Your task to perform on an android device: change the clock display to show seconds Image 0: 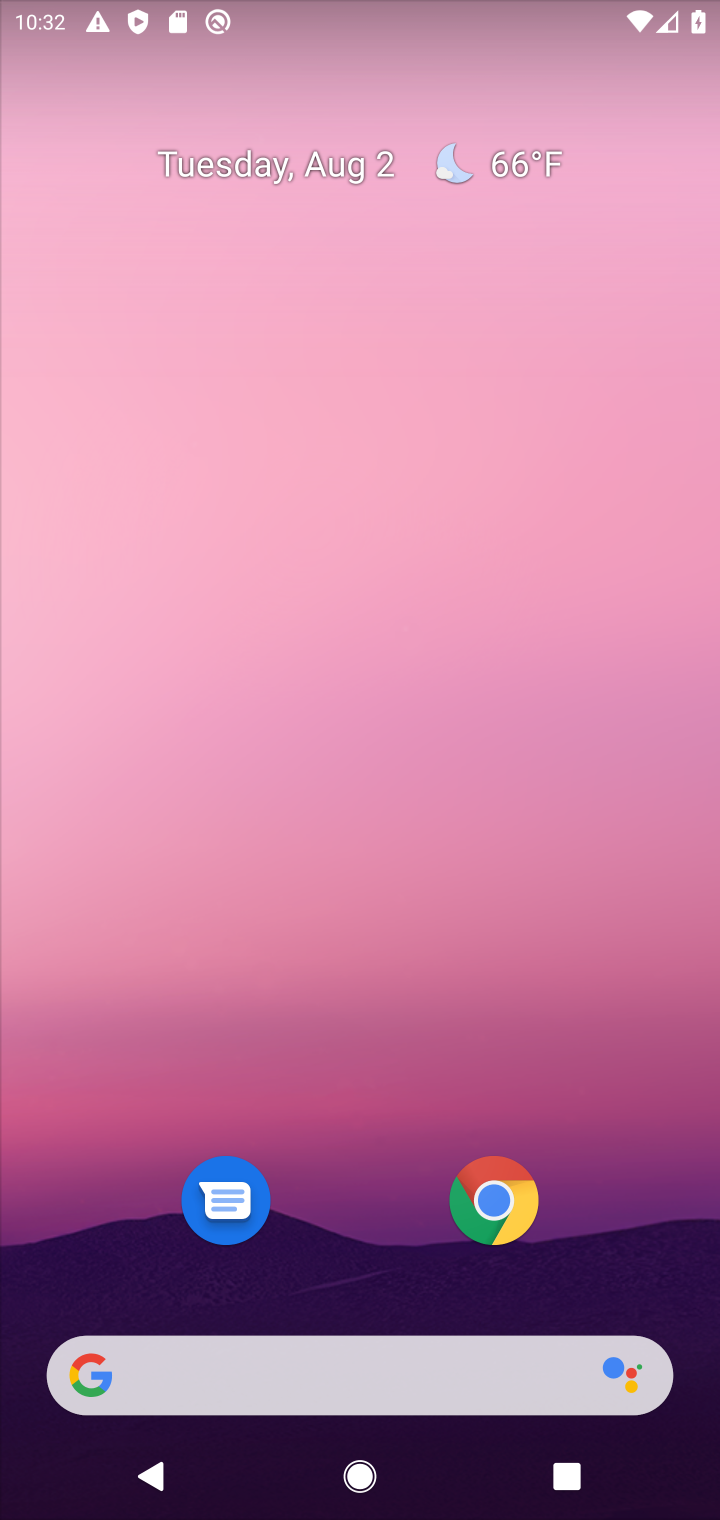
Step 0: drag from (651, 819) to (620, 142)
Your task to perform on an android device: change the clock display to show seconds Image 1: 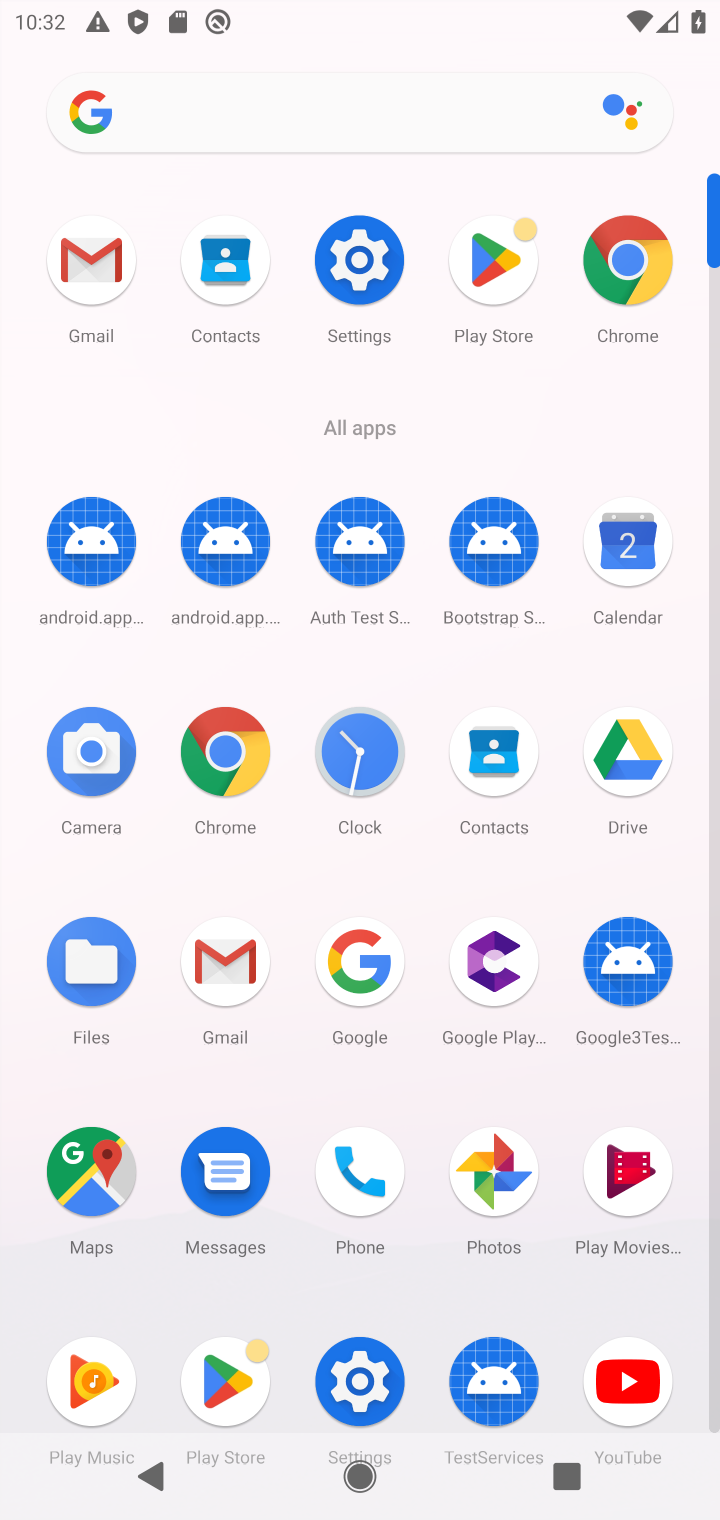
Step 1: click (359, 750)
Your task to perform on an android device: change the clock display to show seconds Image 2: 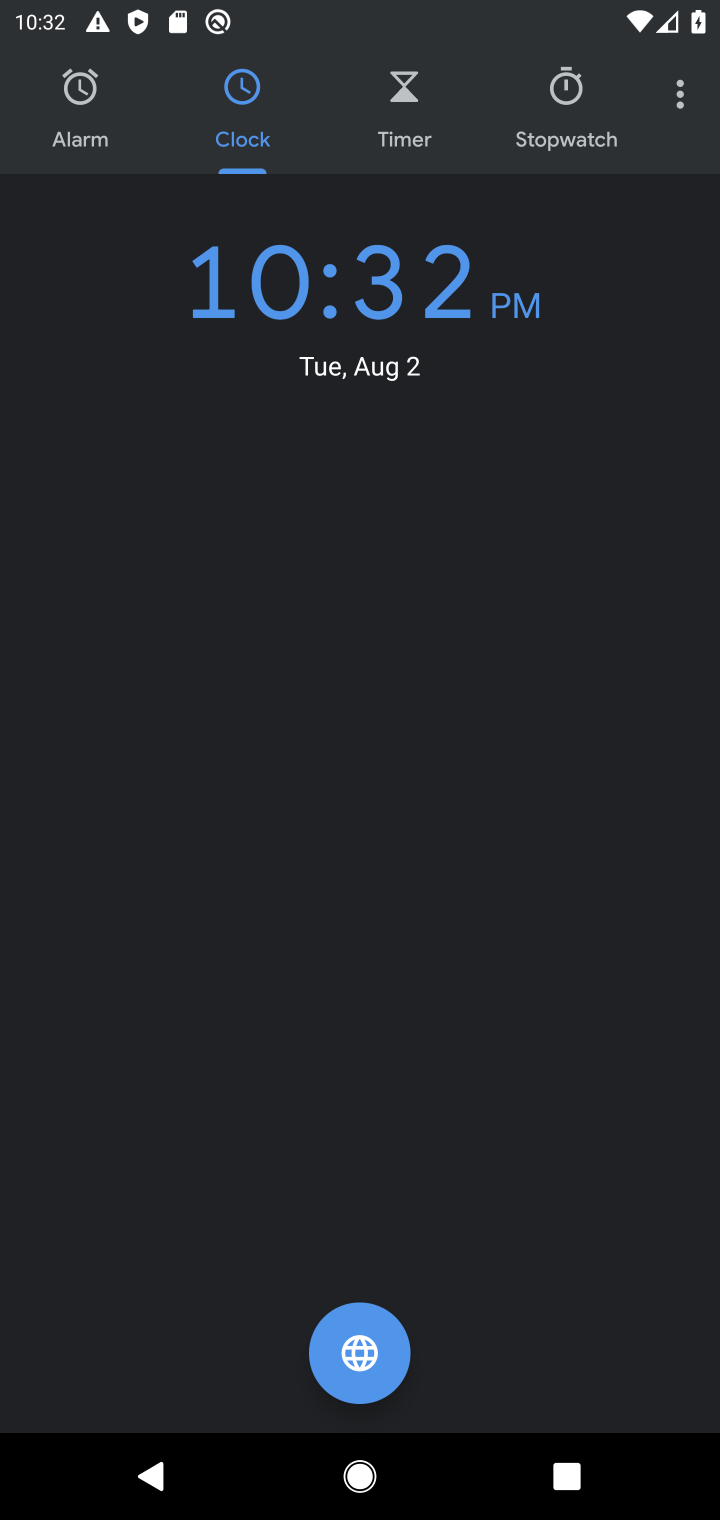
Step 2: click (688, 110)
Your task to perform on an android device: change the clock display to show seconds Image 3: 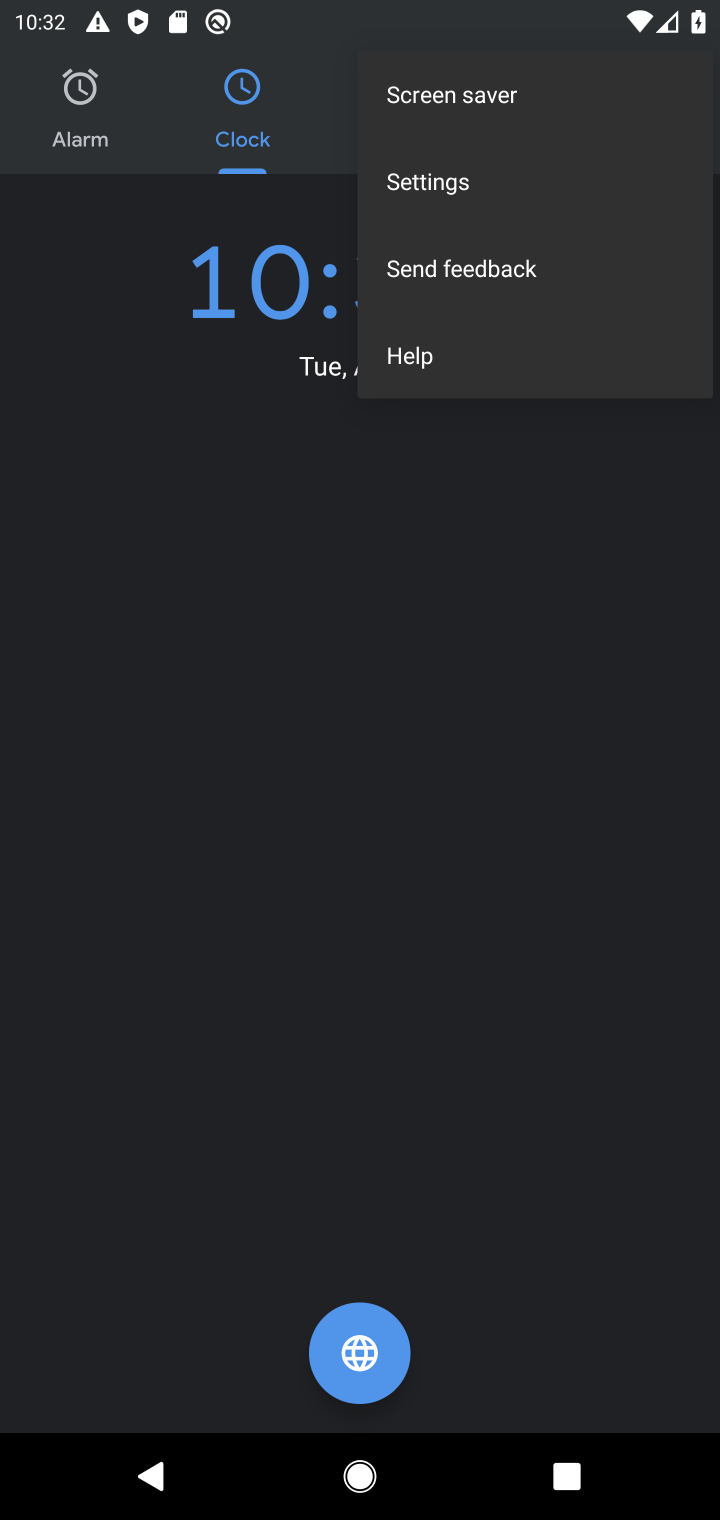
Step 3: click (409, 189)
Your task to perform on an android device: change the clock display to show seconds Image 4: 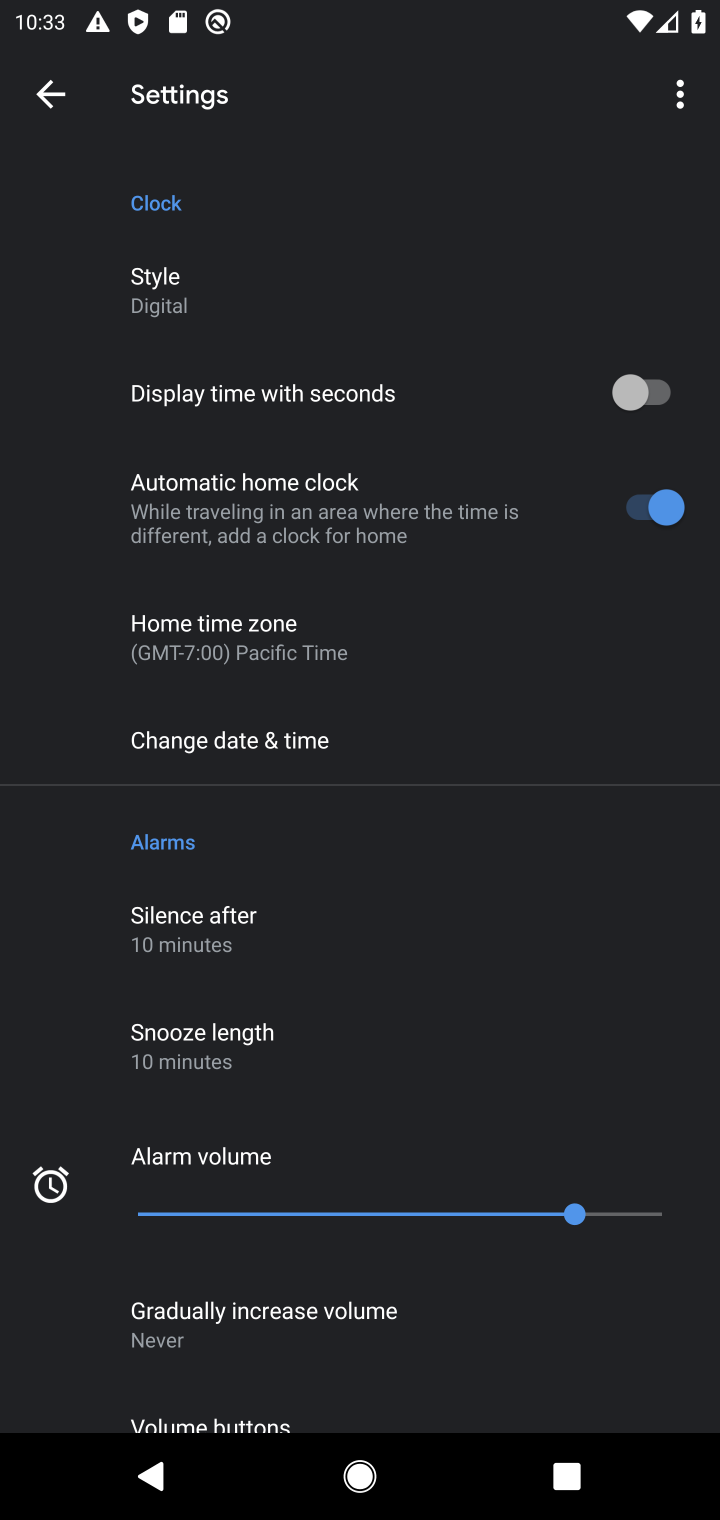
Step 4: click (664, 387)
Your task to perform on an android device: change the clock display to show seconds Image 5: 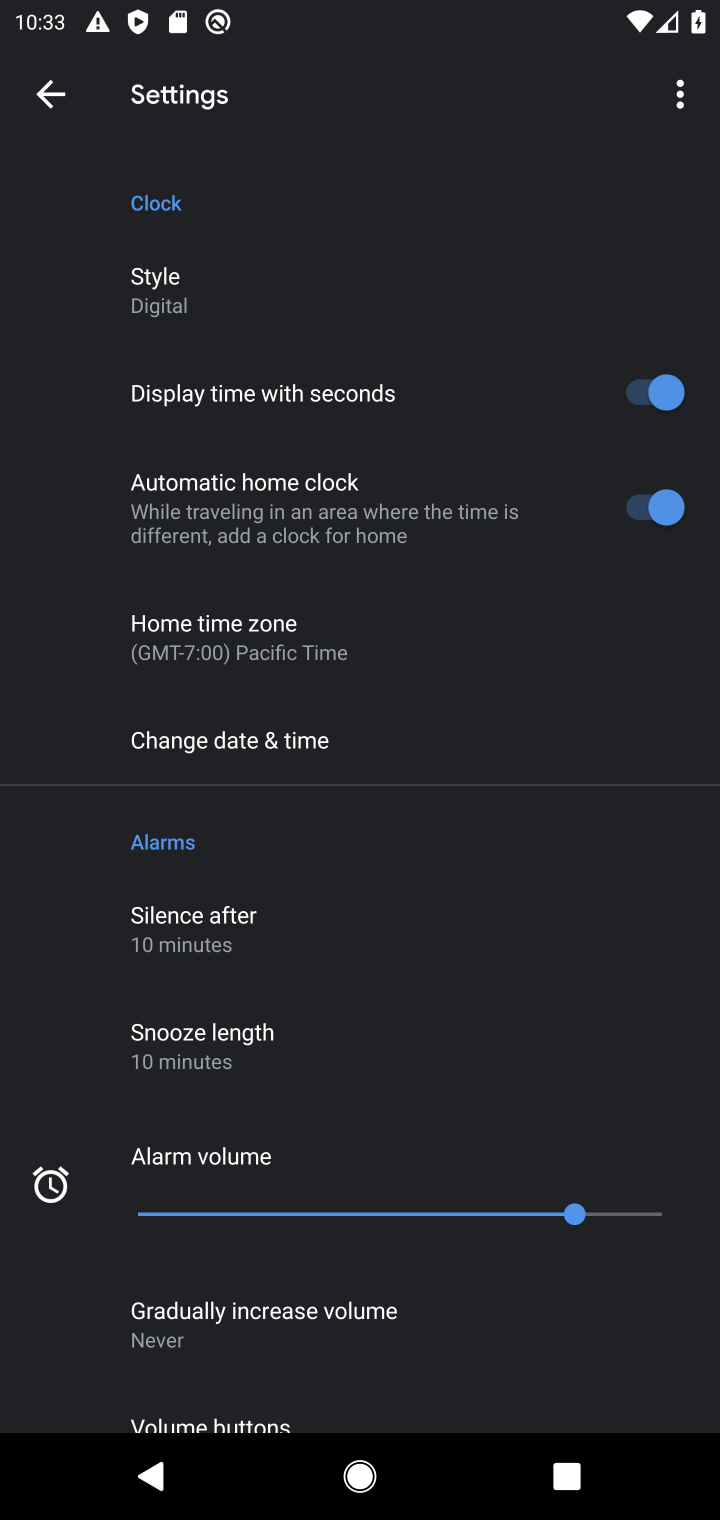
Step 5: task complete